Your task to perform on an android device: turn on priority inbox in the gmail app Image 0: 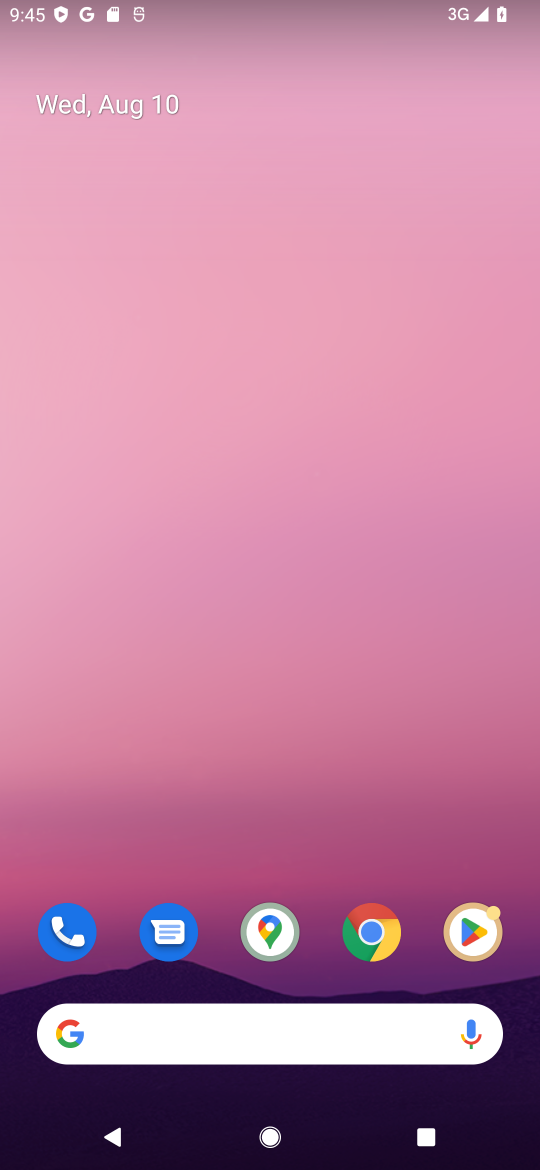
Step 0: drag from (314, 879) to (308, 272)
Your task to perform on an android device: turn on priority inbox in the gmail app Image 1: 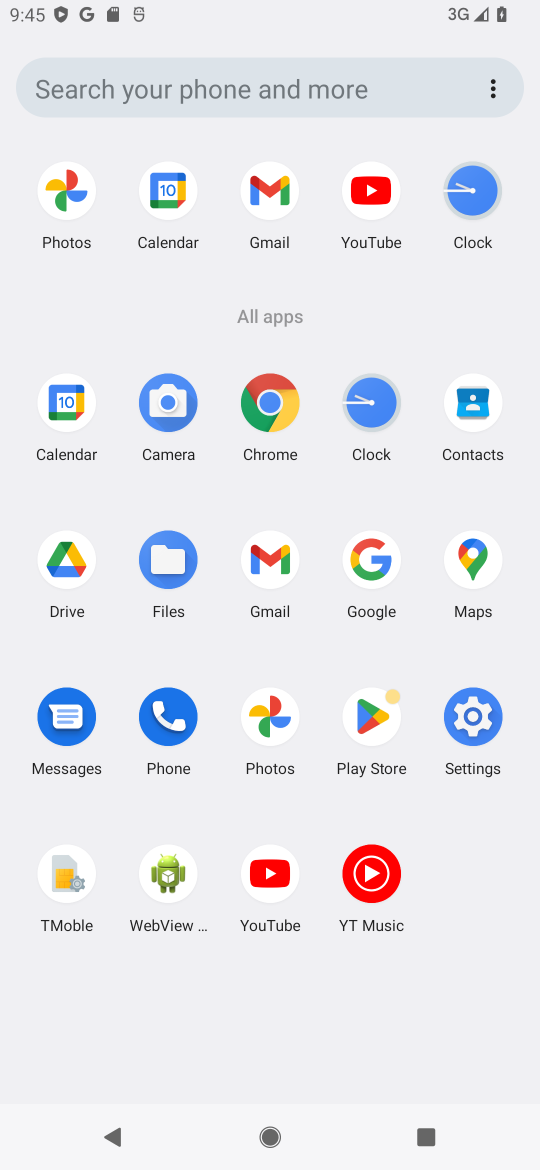
Step 1: click (274, 184)
Your task to perform on an android device: turn on priority inbox in the gmail app Image 2: 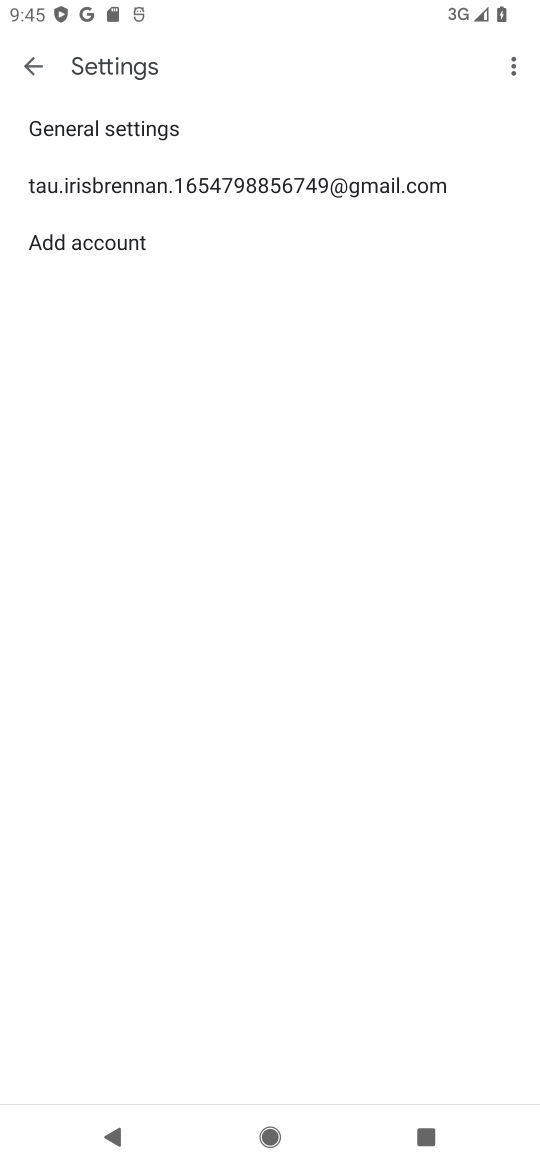
Step 2: click (131, 179)
Your task to perform on an android device: turn on priority inbox in the gmail app Image 3: 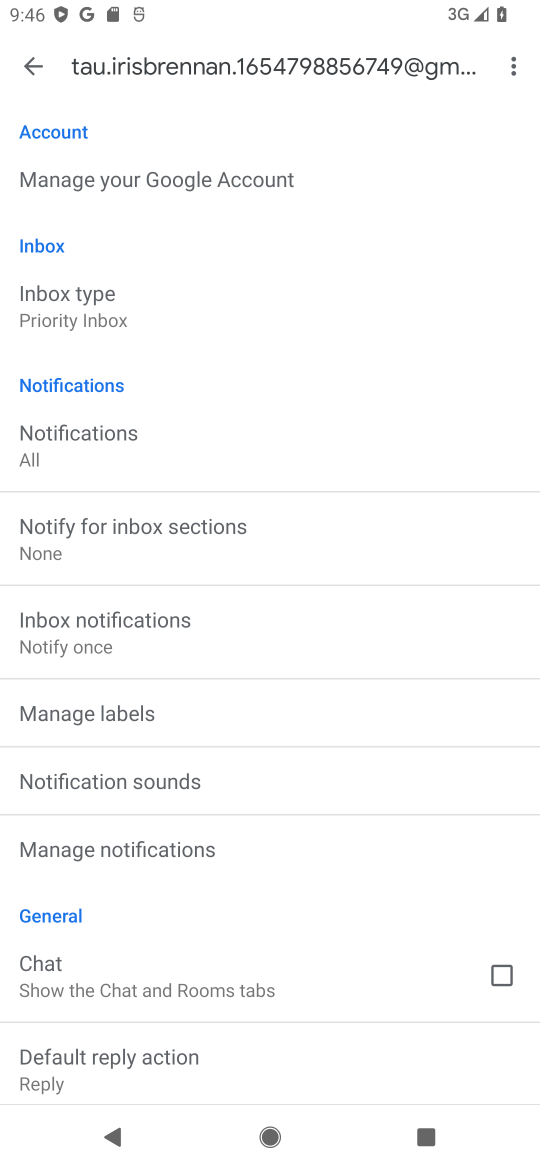
Step 3: click (62, 288)
Your task to perform on an android device: turn on priority inbox in the gmail app Image 4: 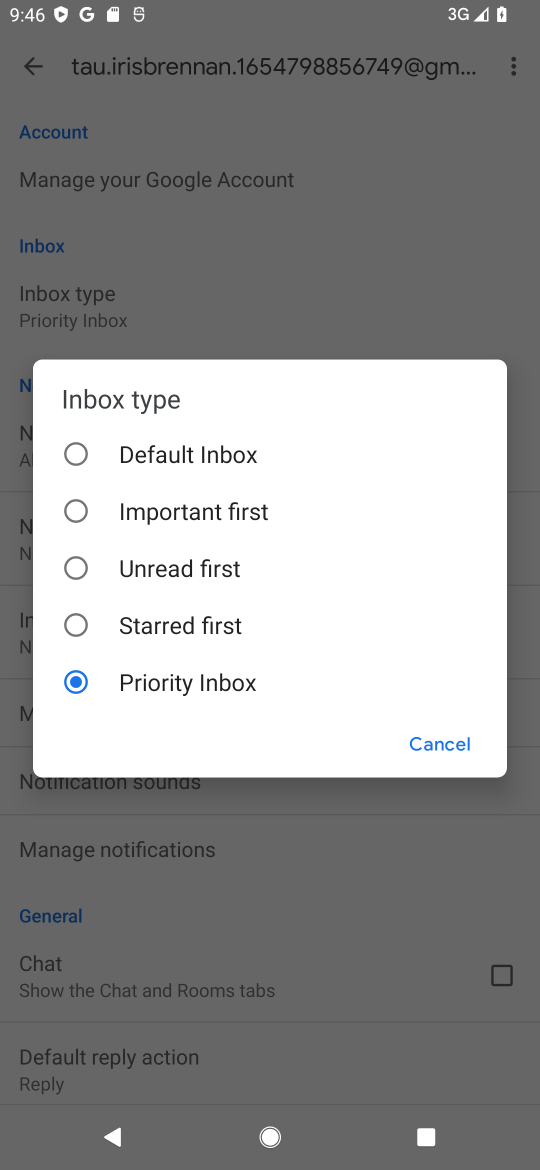
Step 4: task complete